Your task to perform on an android device: What's on my calendar today? Image 0: 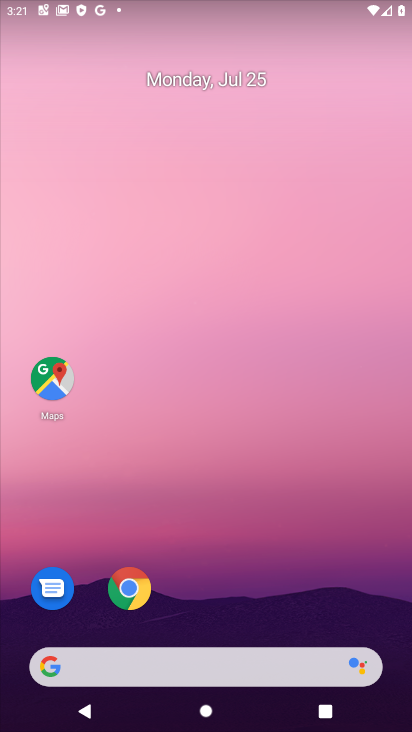
Step 0: drag from (394, 706) to (281, 140)
Your task to perform on an android device: What's on my calendar today? Image 1: 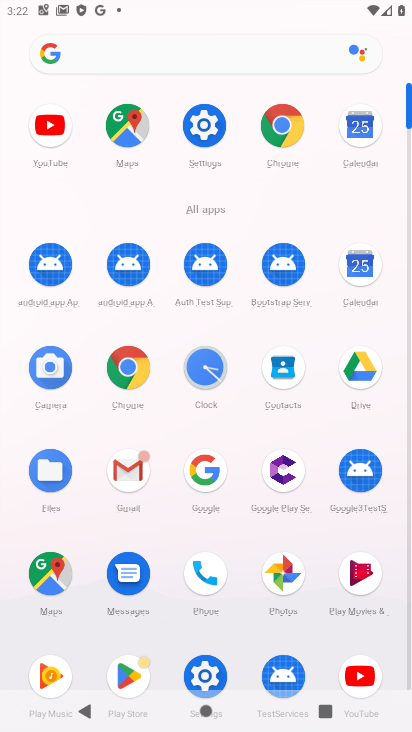
Step 1: click (364, 265)
Your task to perform on an android device: What's on my calendar today? Image 2: 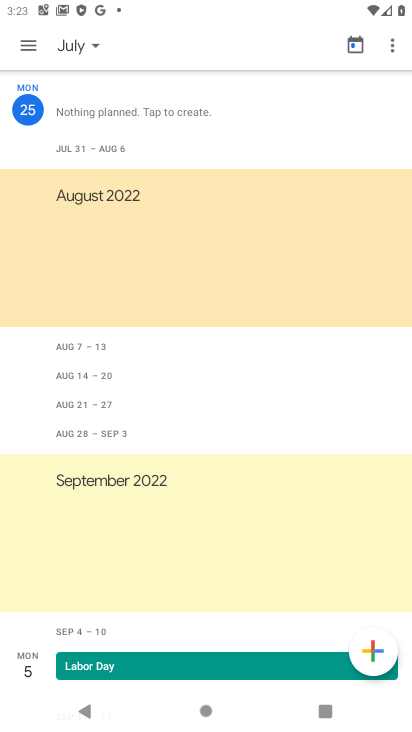
Step 2: click (96, 49)
Your task to perform on an android device: What's on my calendar today? Image 3: 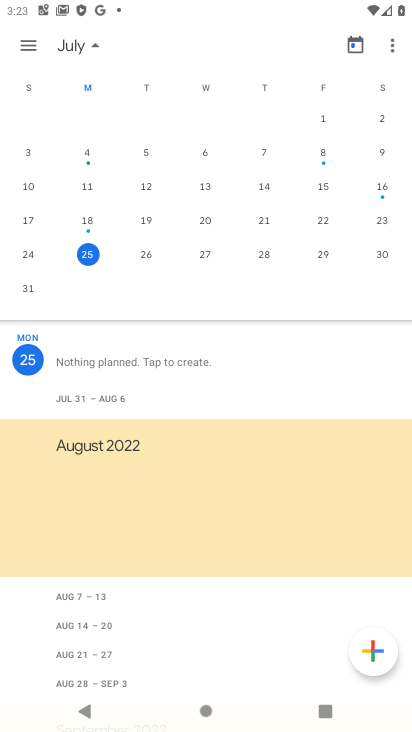
Step 3: click (80, 252)
Your task to perform on an android device: What's on my calendar today? Image 4: 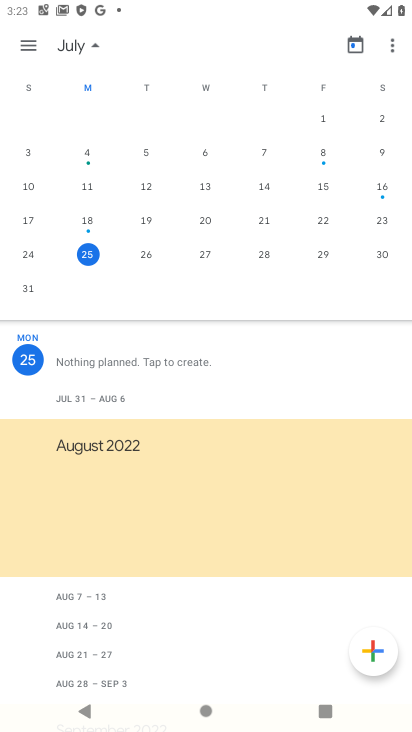
Step 4: click (83, 253)
Your task to perform on an android device: What's on my calendar today? Image 5: 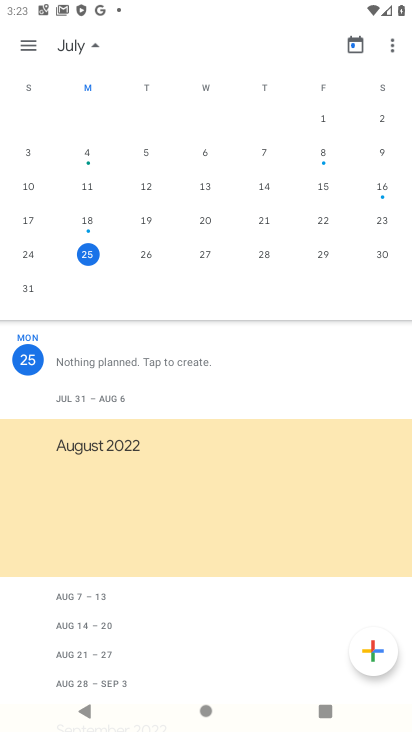
Step 5: task complete